Your task to perform on an android device: change timer sound Image 0: 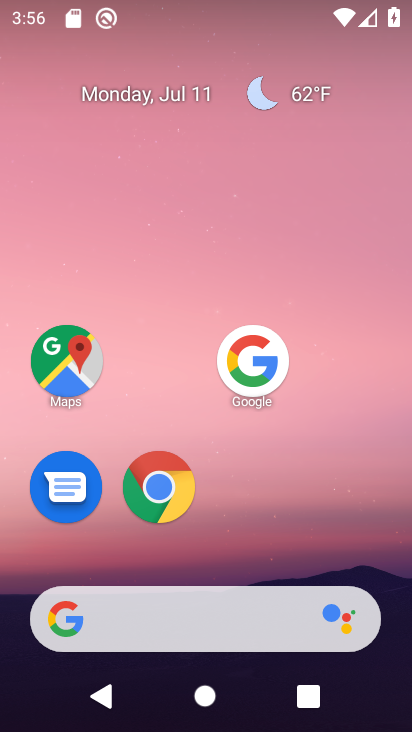
Step 0: drag from (212, 609) to (316, 24)
Your task to perform on an android device: change timer sound Image 1: 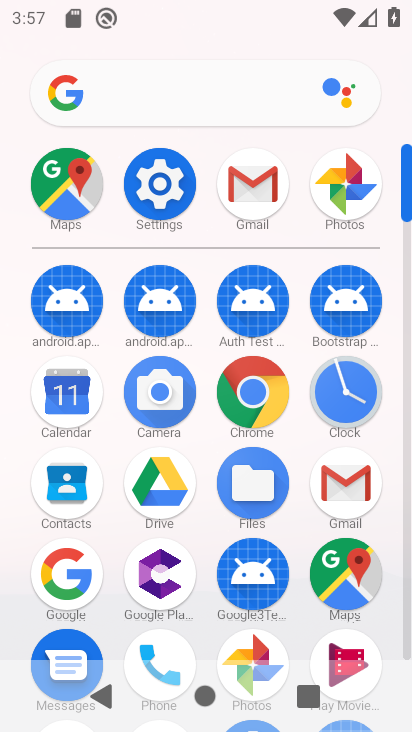
Step 1: click (340, 398)
Your task to perform on an android device: change timer sound Image 2: 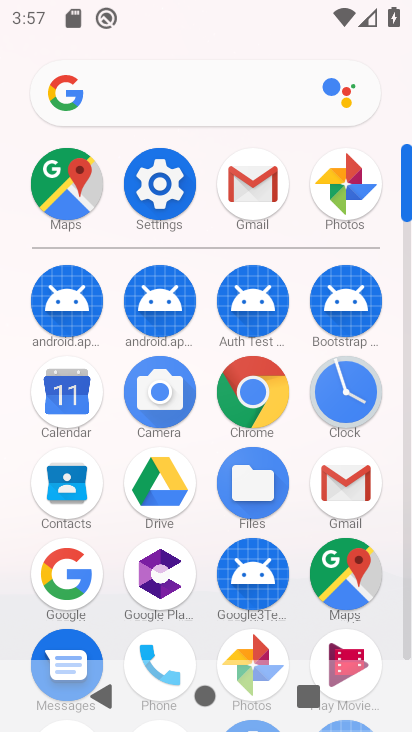
Step 2: click (346, 395)
Your task to perform on an android device: change timer sound Image 3: 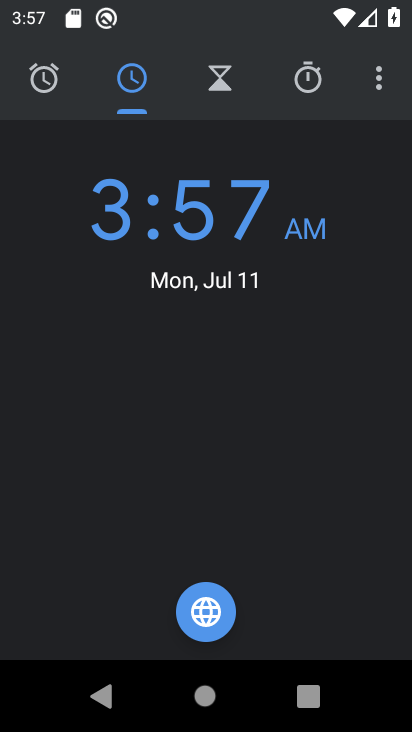
Step 3: click (380, 80)
Your task to perform on an android device: change timer sound Image 4: 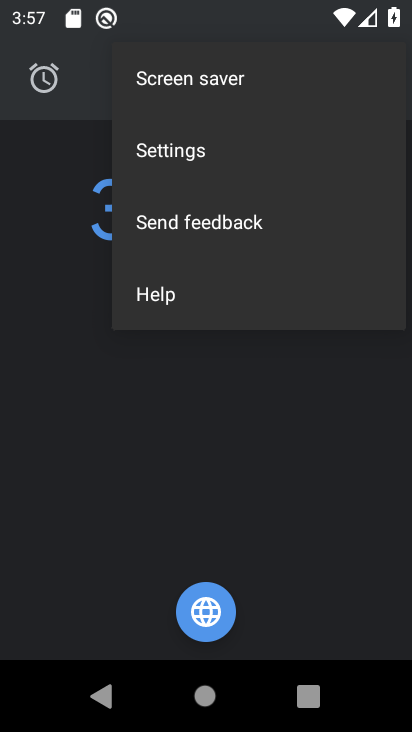
Step 4: click (191, 149)
Your task to perform on an android device: change timer sound Image 5: 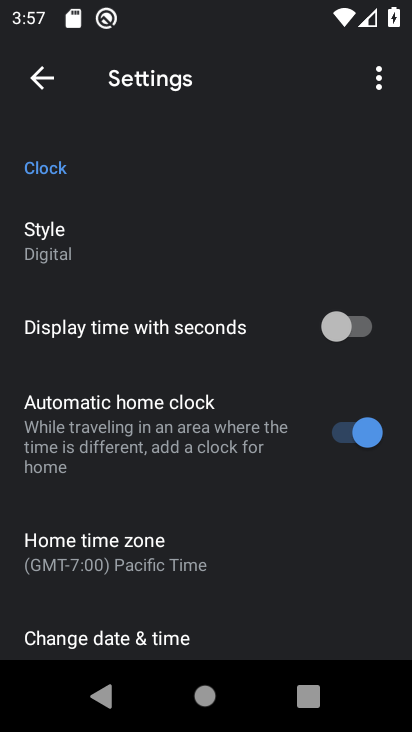
Step 5: drag from (222, 601) to (240, 60)
Your task to perform on an android device: change timer sound Image 6: 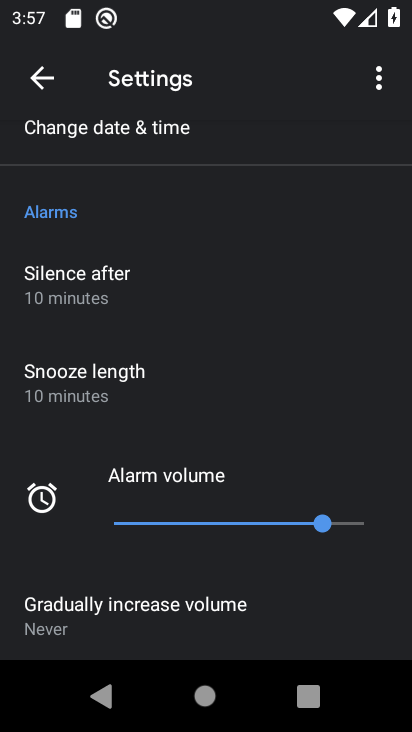
Step 6: drag from (196, 596) to (260, 17)
Your task to perform on an android device: change timer sound Image 7: 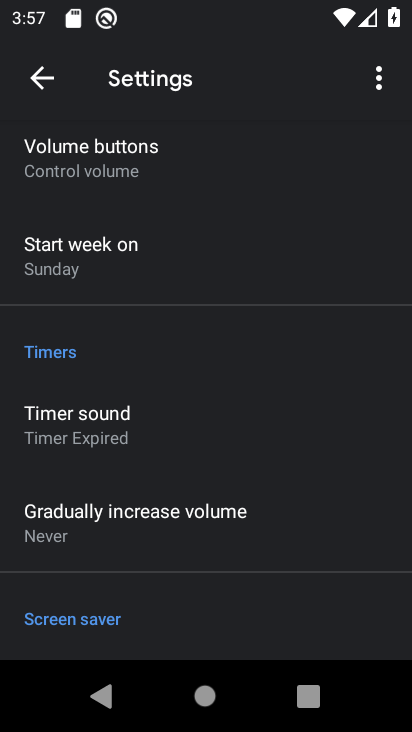
Step 7: click (91, 434)
Your task to perform on an android device: change timer sound Image 8: 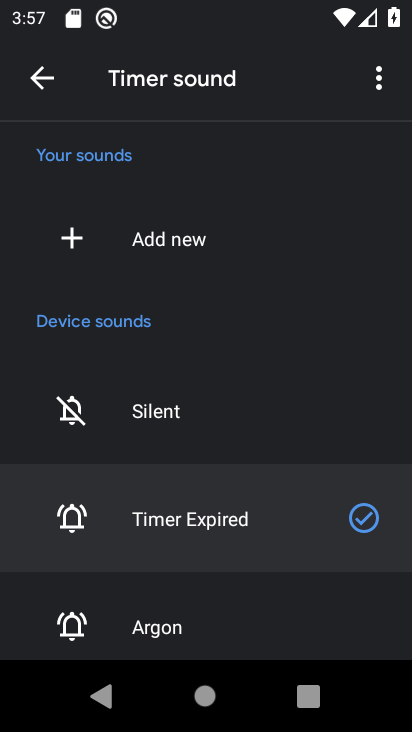
Step 8: click (169, 630)
Your task to perform on an android device: change timer sound Image 9: 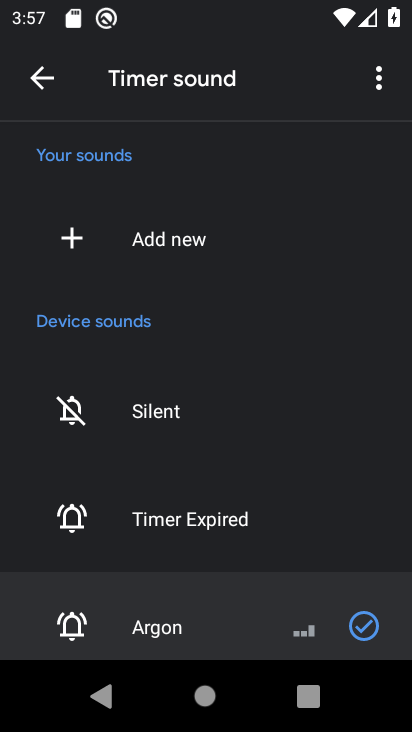
Step 9: task complete